Your task to perform on an android device: Open Chrome and go to the settings page Image 0: 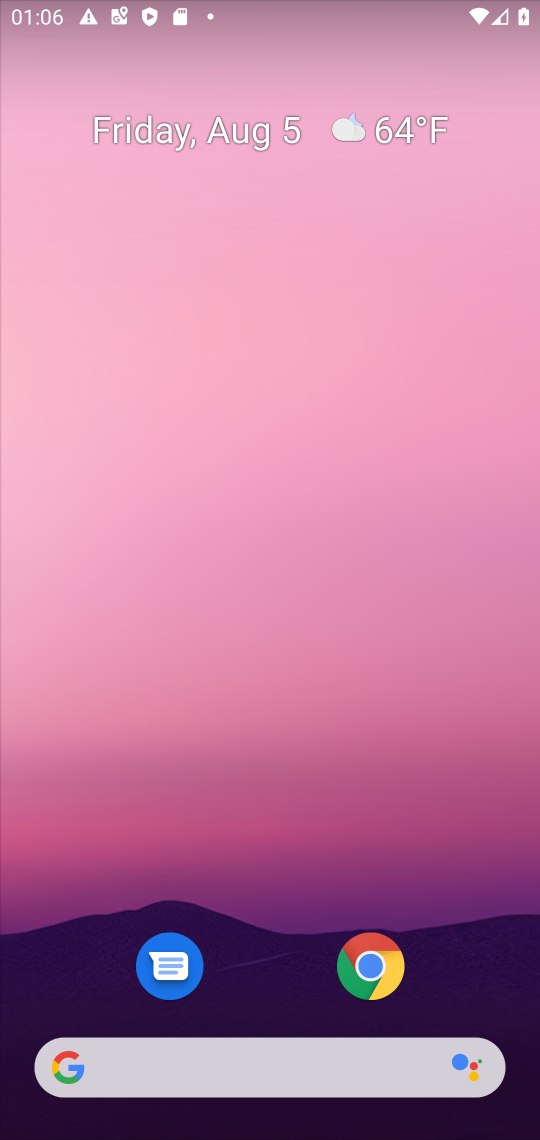
Step 0: click (374, 962)
Your task to perform on an android device: Open Chrome and go to the settings page Image 1: 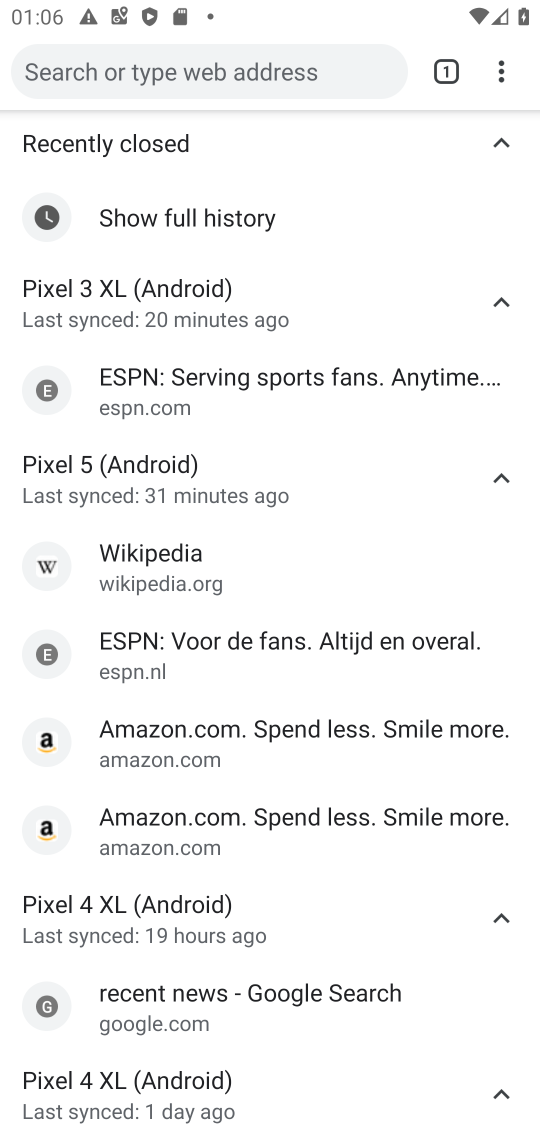
Step 1: click (497, 67)
Your task to perform on an android device: Open Chrome and go to the settings page Image 2: 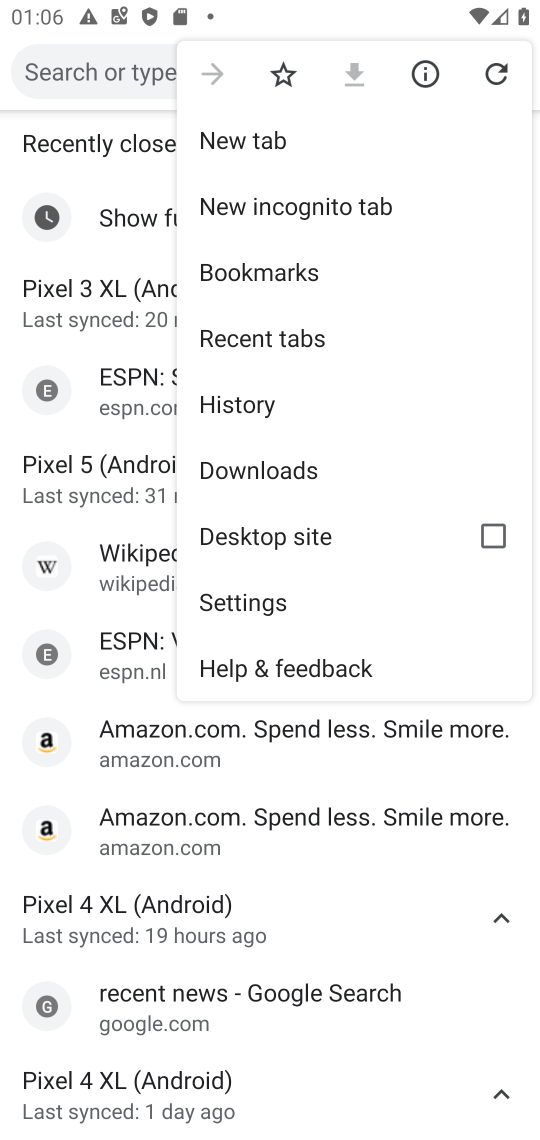
Step 2: click (287, 601)
Your task to perform on an android device: Open Chrome and go to the settings page Image 3: 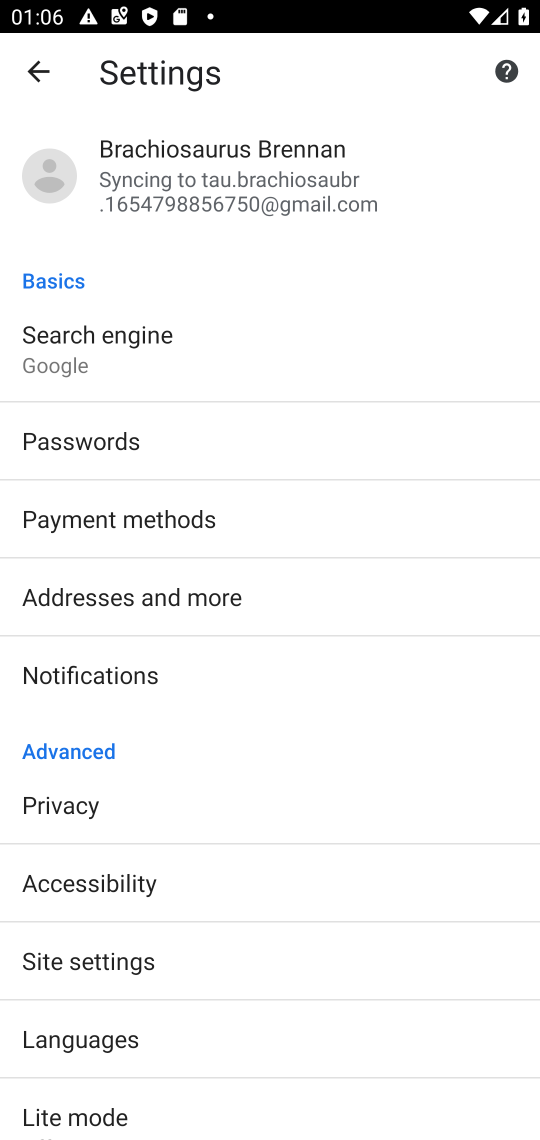
Step 3: task complete